Your task to perform on an android device: Search for "dell xps" on newegg, select the first entry, and add it to the cart. Image 0: 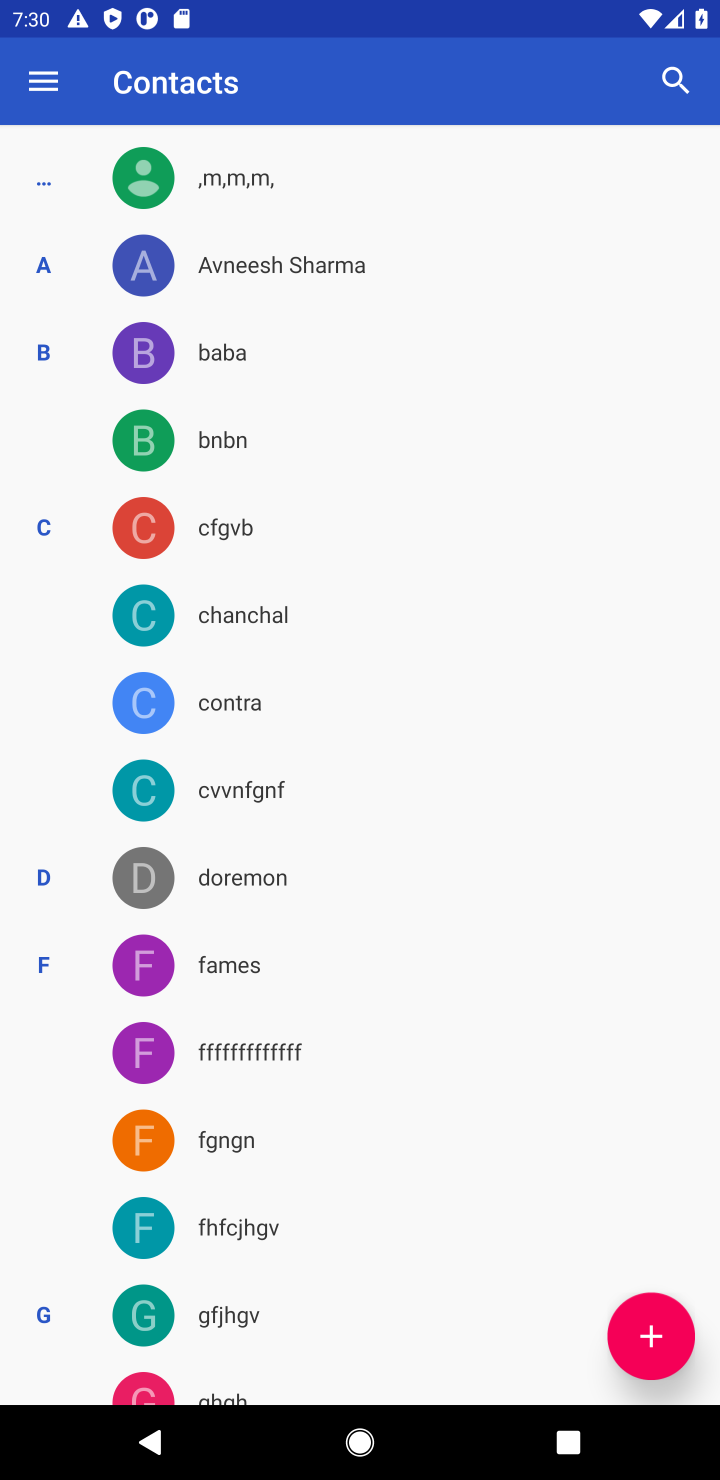
Step 0: press home button
Your task to perform on an android device: Search for "dell xps" on newegg, select the first entry, and add it to the cart. Image 1: 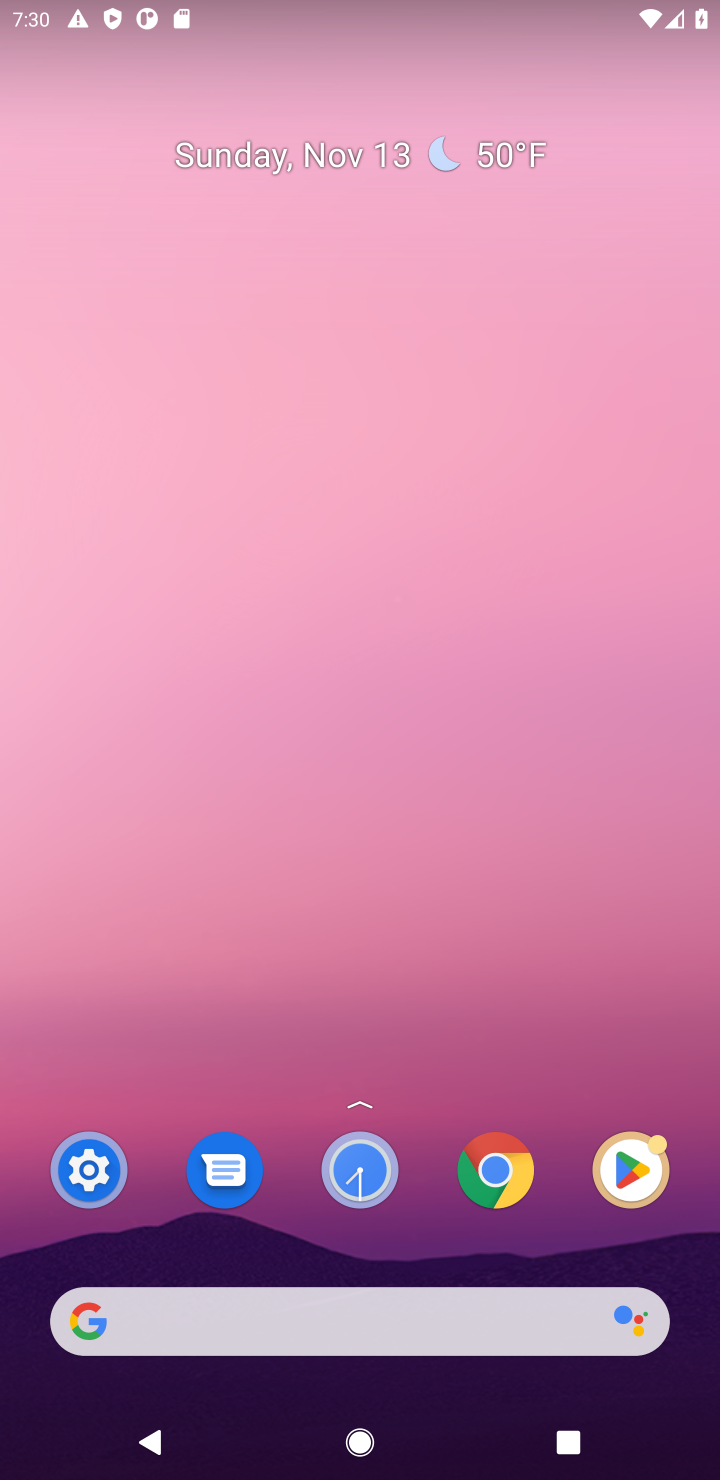
Step 1: click (430, 1331)
Your task to perform on an android device: Search for "dell xps" on newegg, select the first entry, and add it to the cart. Image 2: 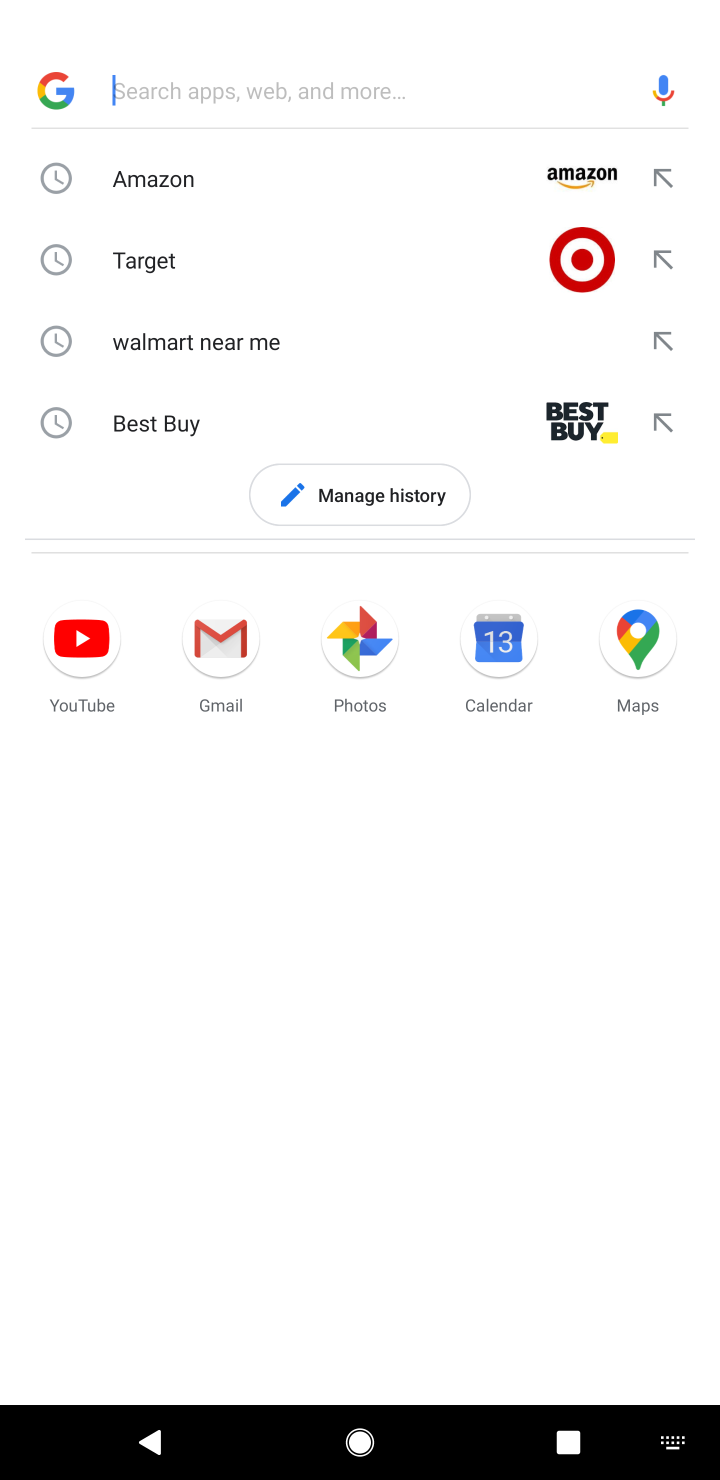
Step 2: type "newwegg"
Your task to perform on an android device: Search for "dell xps" on newegg, select the first entry, and add it to the cart. Image 3: 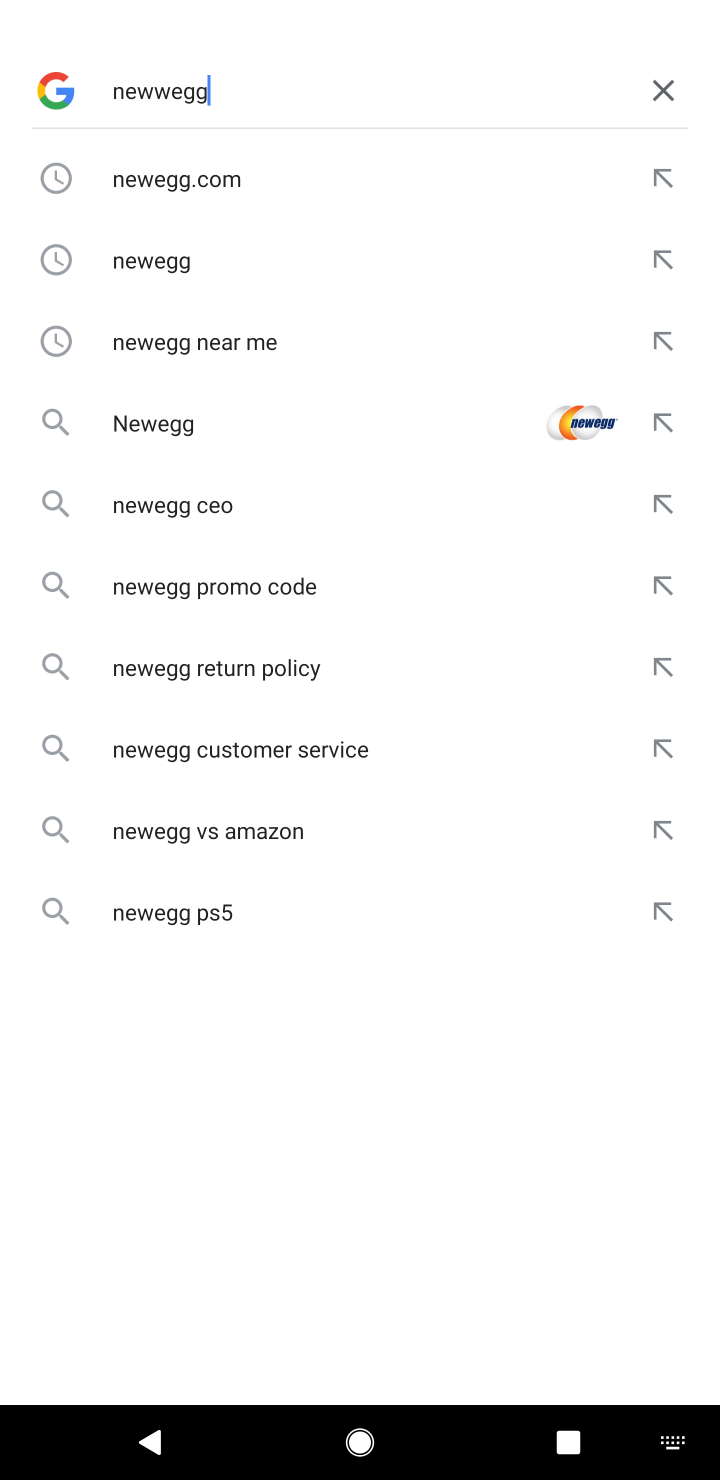
Step 3: click (200, 211)
Your task to perform on an android device: Search for "dell xps" on newegg, select the first entry, and add it to the cart. Image 4: 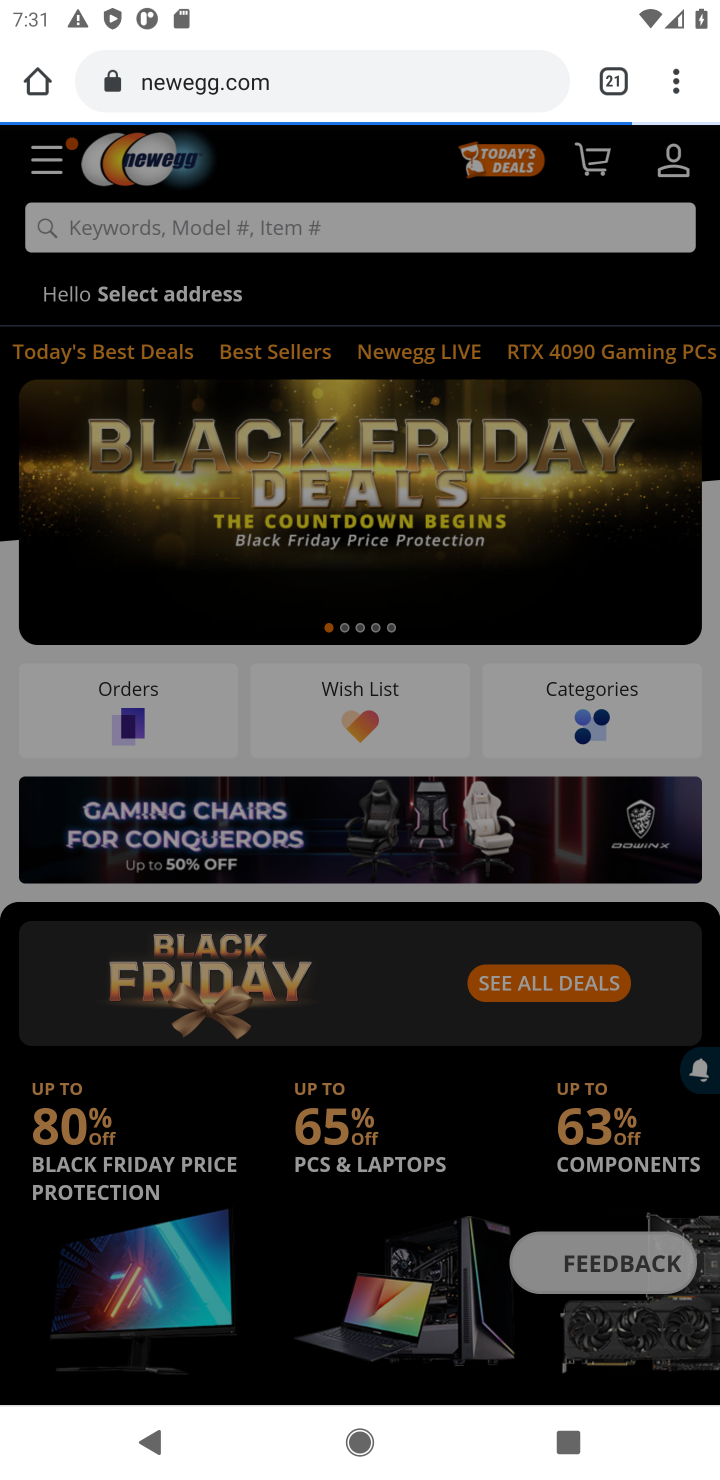
Step 4: task complete